Your task to perform on an android device: Open location settings Image 0: 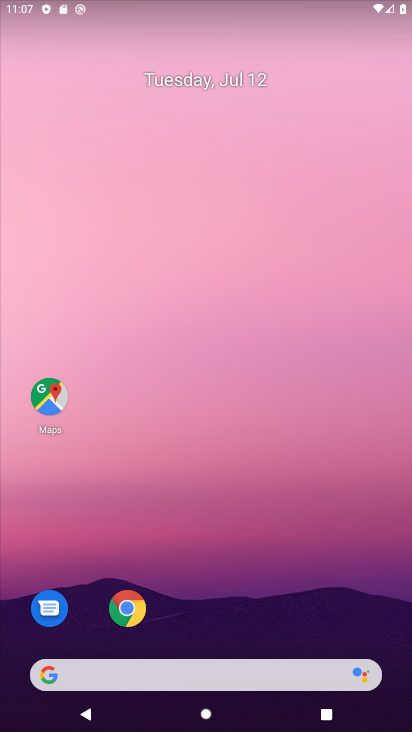
Step 0: drag from (234, 633) to (309, 47)
Your task to perform on an android device: Open location settings Image 1: 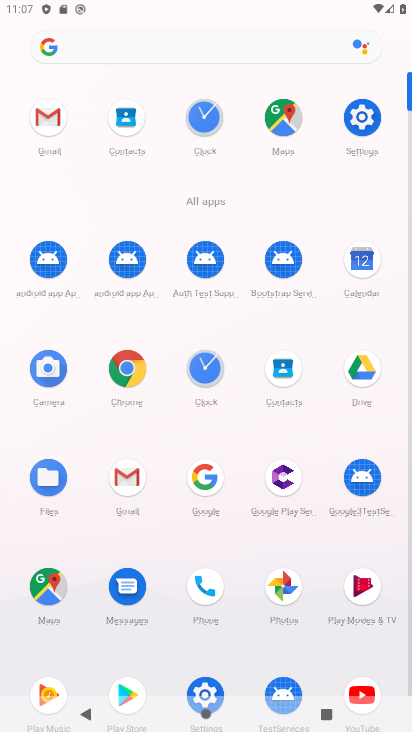
Step 1: click (362, 120)
Your task to perform on an android device: Open location settings Image 2: 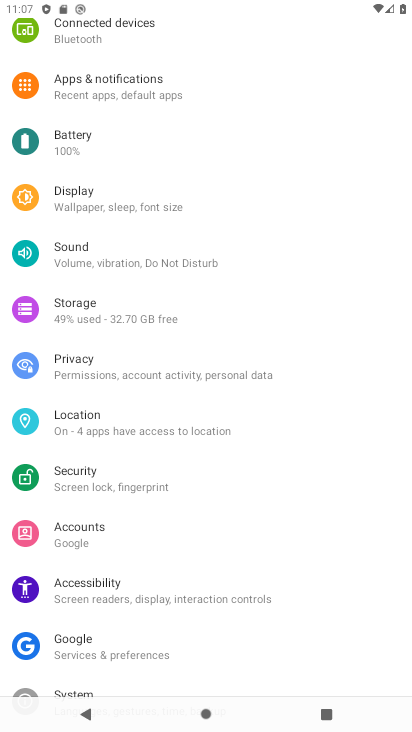
Step 2: click (77, 414)
Your task to perform on an android device: Open location settings Image 3: 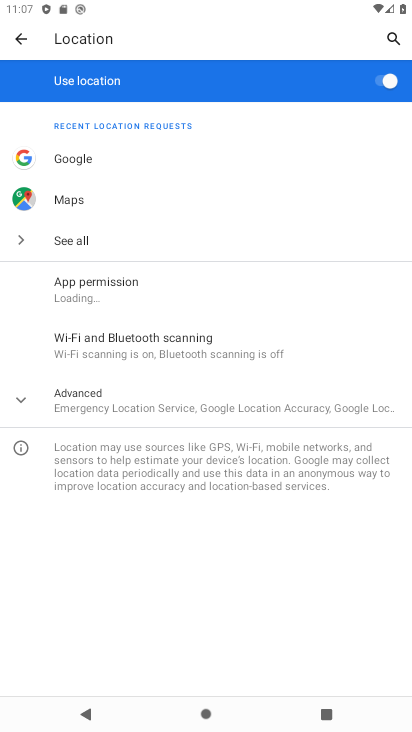
Step 3: task complete